Your task to perform on an android device: Check the news Image 0: 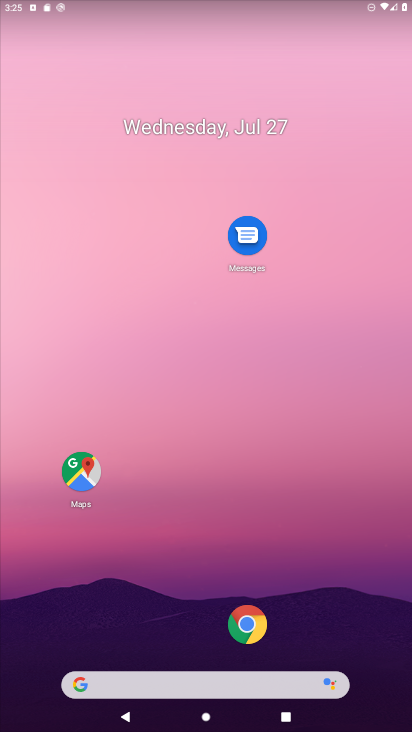
Step 0: click (162, 691)
Your task to perform on an android device: Check the news Image 1: 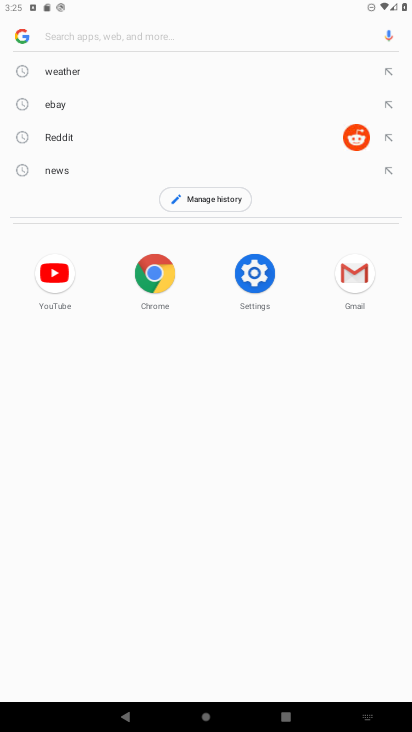
Step 1: click (75, 177)
Your task to perform on an android device: Check the news Image 2: 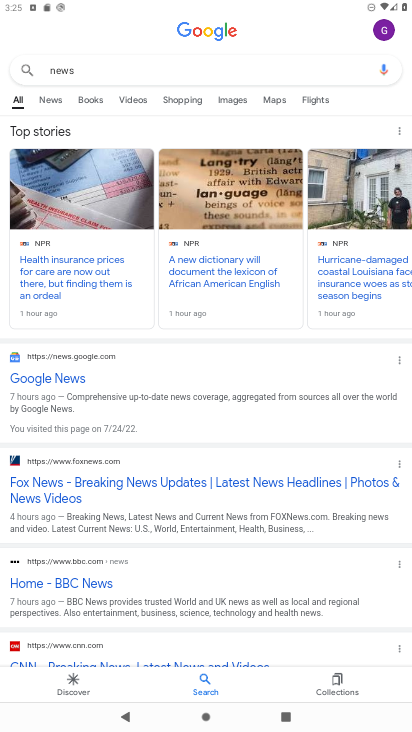
Step 2: task complete